Your task to perform on an android device: Open network settings Image 0: 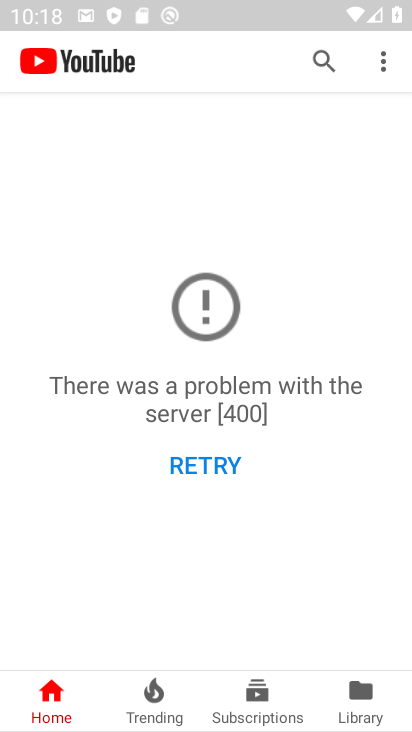
Step 0: press home button
Your task to perform on an android device: Open network settings Image 1: 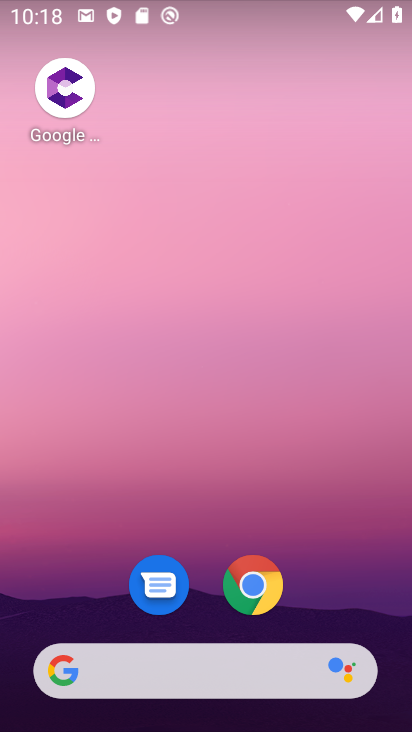
Step 1: drag from (288, 501) to (312, 26)
Your task to perform on an android device: Open network settings Image 2: 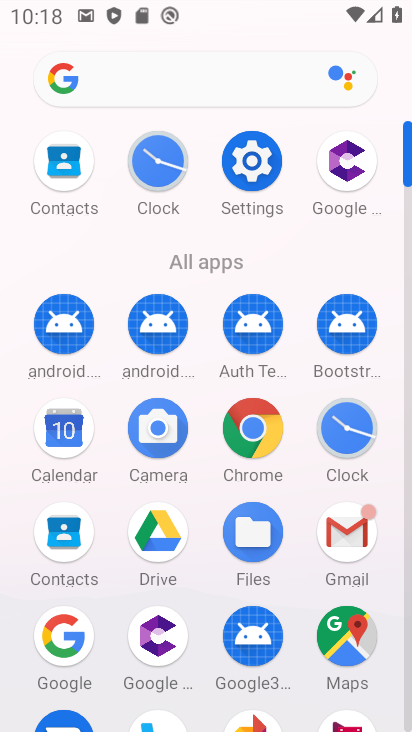
Step 2: click (265, 148)
Your task to perform on an android device: Open network settings Image 3: 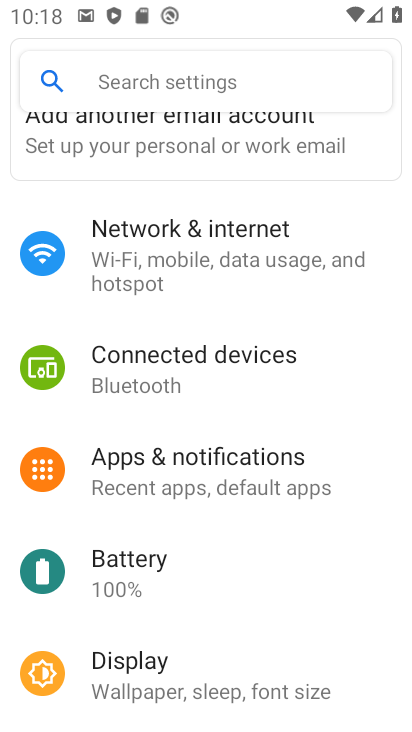
Step 3: click (238, 251)
Your task to perform on an android device: Open network settings Image 4: 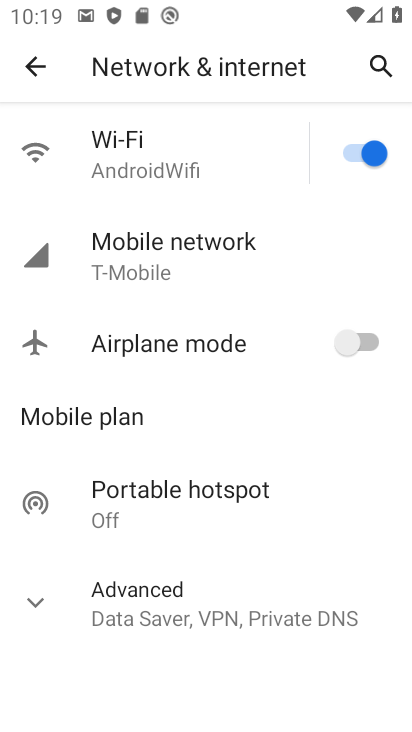
Step 4: task complete